Your task to perform on an android device: Go to battery settings Image 0: 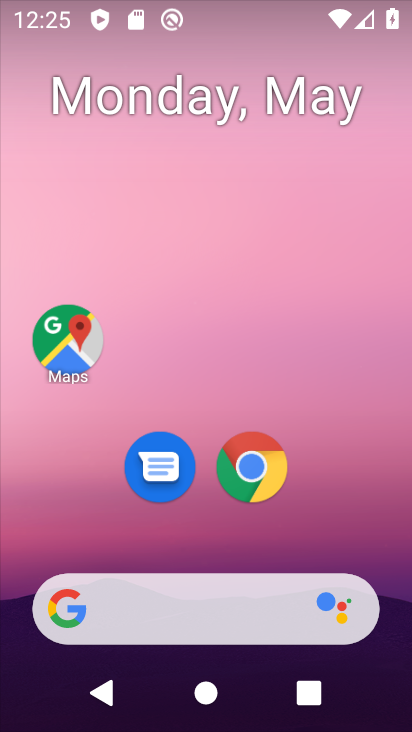
Step 0: press home button
Your task to perform on an android device: Go to battery settings Image 1: 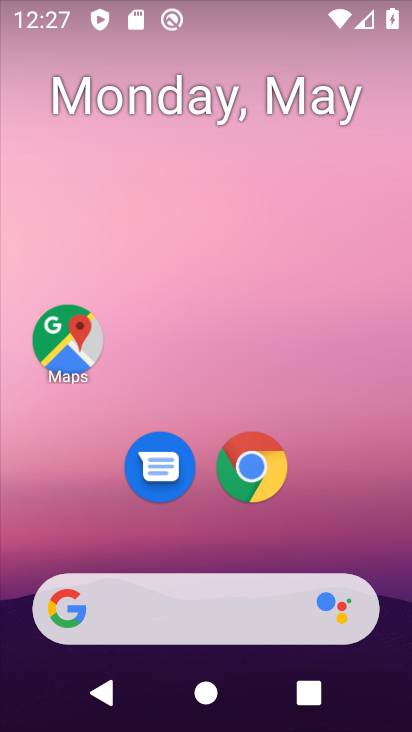
Step 1: drag from (396, 548) to (233, 125)
Your task to perform on an android device: Go to battery settings Image 2: 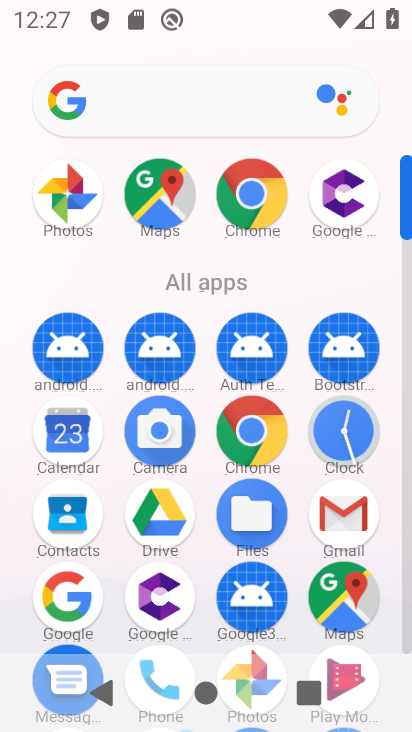
Step 2: click (404, 651)
Your task to perform on an android device: Go to battery settings Image 3: 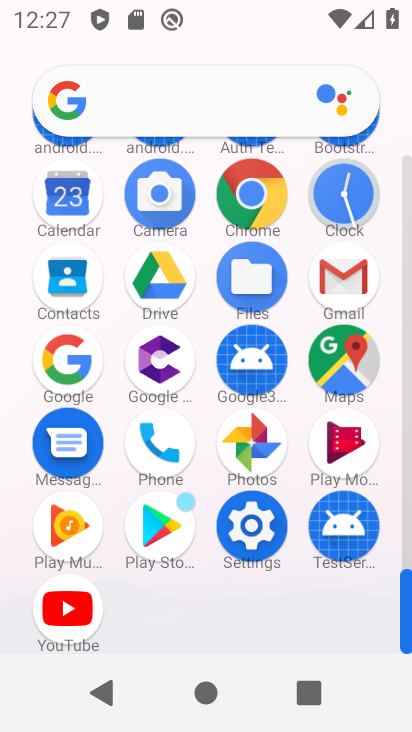
Step 3: click (240, 512)
Your task to perform on an android device: Go to battery settings Image 4: 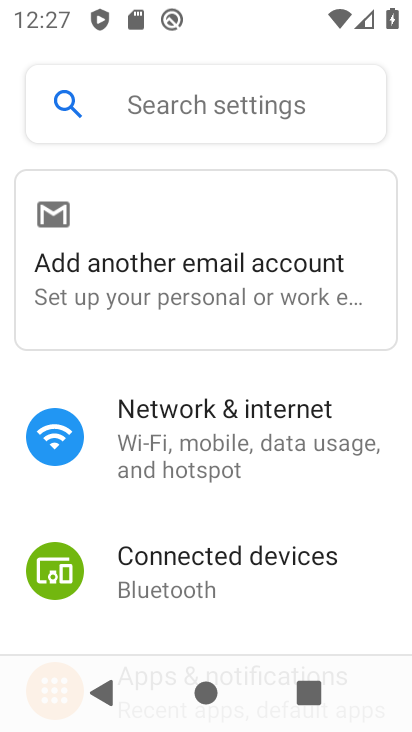
Step 4: drag from (264, 551) to (259, 206)
Your task to perform on an android device: Go to battery settings Image 5: 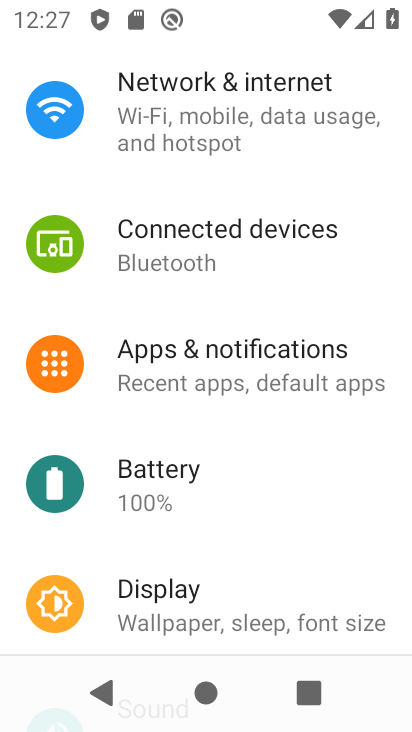
Step 5: click (215, 479)
Your task to perform on an android device: Go to battery settings Image 6: 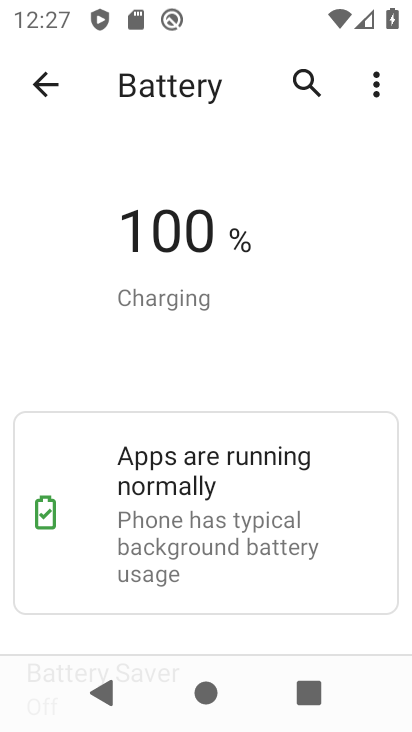
Step 6: task complete